Your task to perform on an android device: open app "Clock" Image 0: 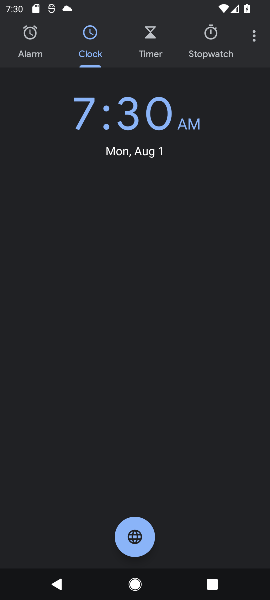
Step 0: press home button
Your task to perform on an android device: open app "Clock" Image 1: 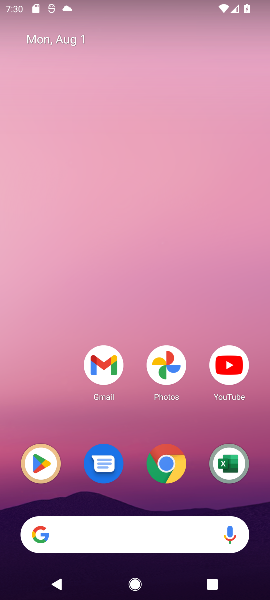
Step 1: drag from (76, 494) to (108, 128)
Your task to perform on an android device: open app "Clock" Image 2: 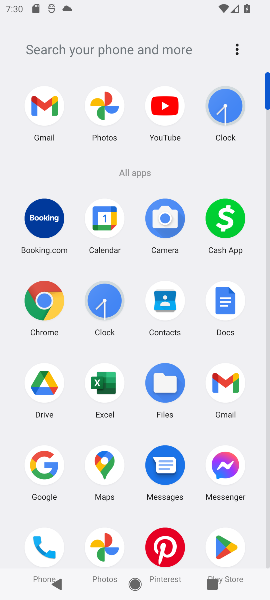
Step 2: click (235, 115)
Your task to perform on an android device: open app "Clock" Image 3: 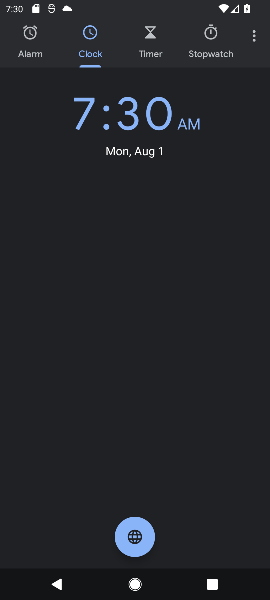
Step 3: task complete